Your task to perform on an android device: Open Amazon Image 0: 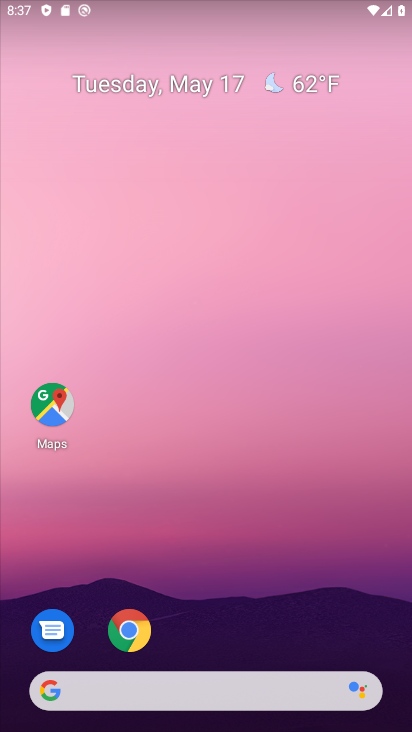
Step 0: click (132, 632)
Your task to perform on an android device: Open Amazon Image 1: 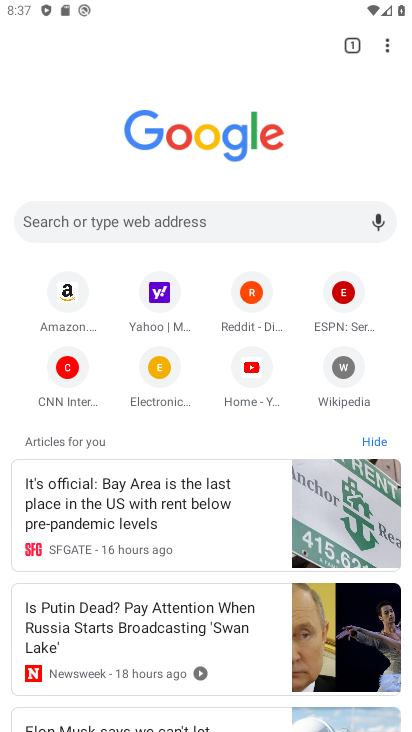
Step 1: click (156, 309)
Your task to perform on an android device: Open Amazon Image 2: 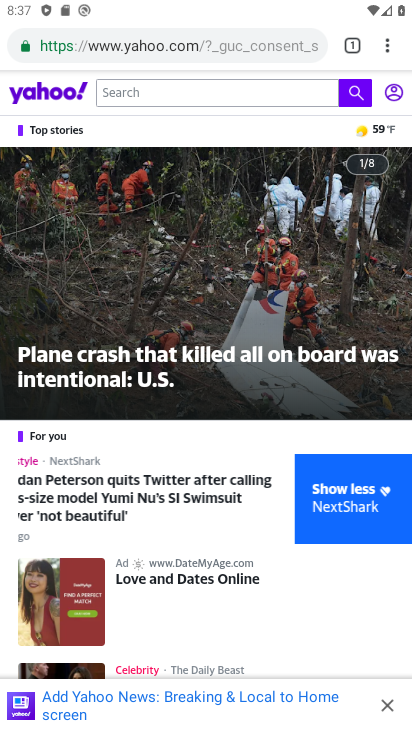
Step 2: press back button
Your task to perform on an android device: Open Amazon Image 3: 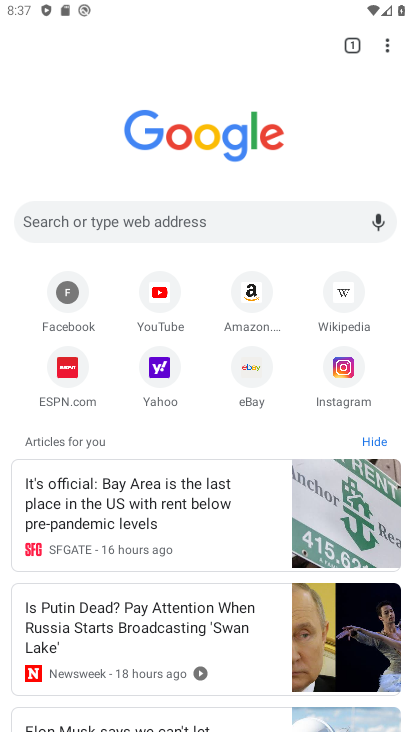
Step 3: click (257, 306)
Your task to perform on an android device: Open Amazon Image 4: 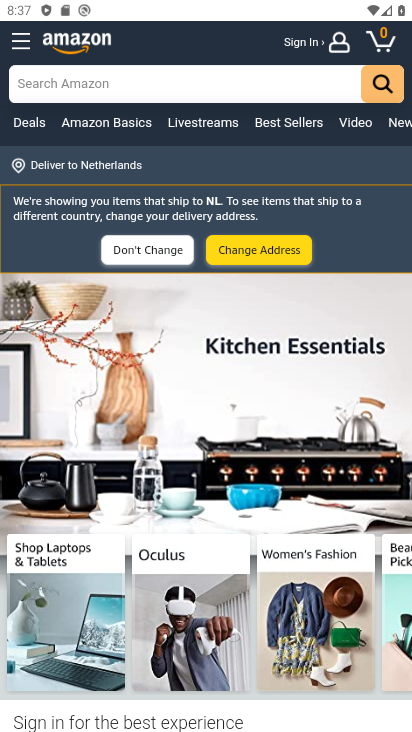
Step 4: task complete